Your task to perform on an android device: Open Google Chrome Image 0: 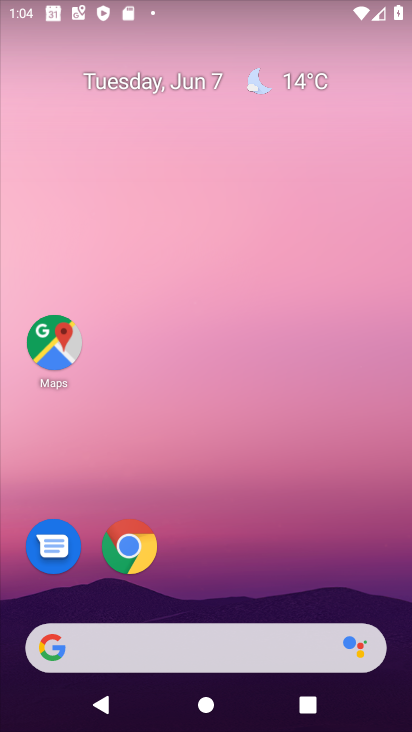
Step 0: drag from (205, 610) to (126, 112)
Your task to perform on an android device: Open Google Chrome Image 1: 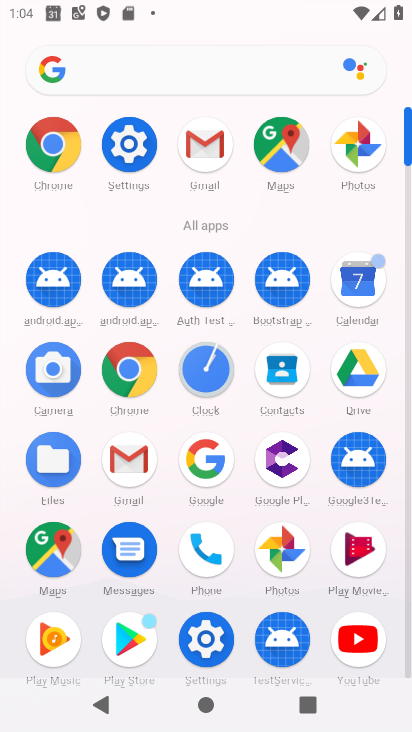
Step 1: click (122, 386)
Your task to perform on an android device: Open Google Chrome Image 2: 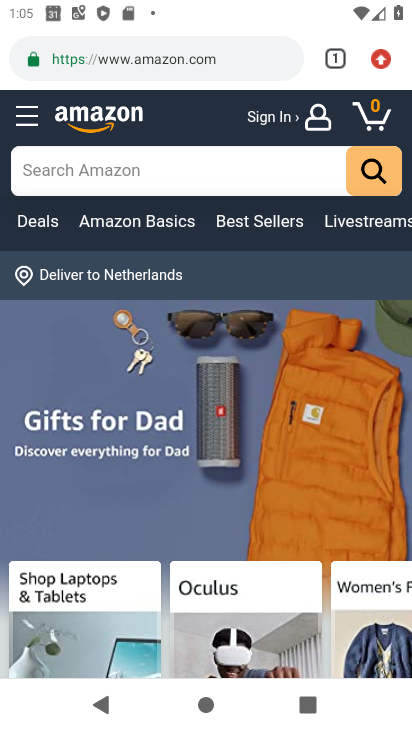
Step 2: task complete